Your task to perform on an android device: Set the phone to "Do not disturb". Image 0: 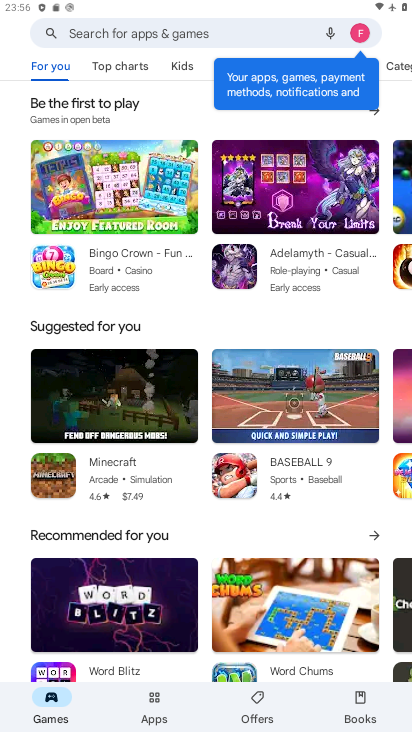
Step 0: press back button
Your task to perform on an android device: Set the phone to "Do not disturb". Image 1: 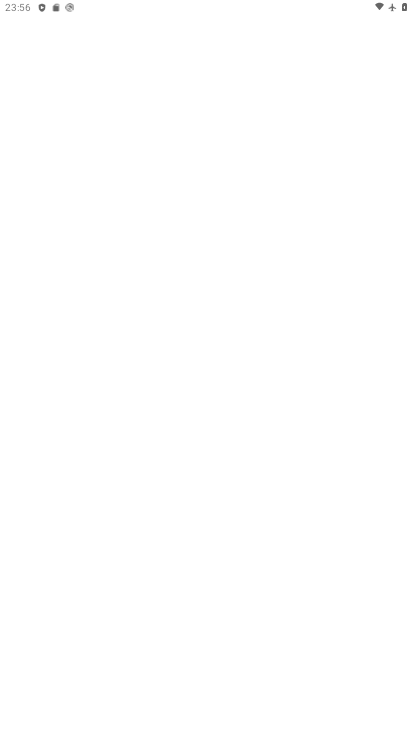
Step 1: press back button
Your task to perform on an android device: Set the phone to "Do not disturb". Image 2: 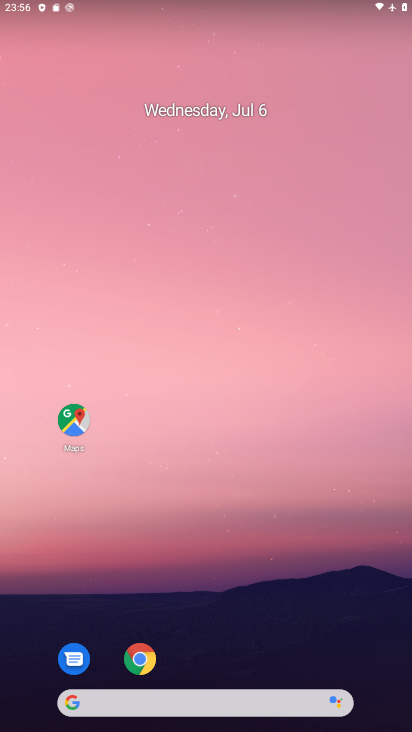
Step 2: press home button
Your task to perform on an android device: Set the phone to "Do not disturb". Image 3: 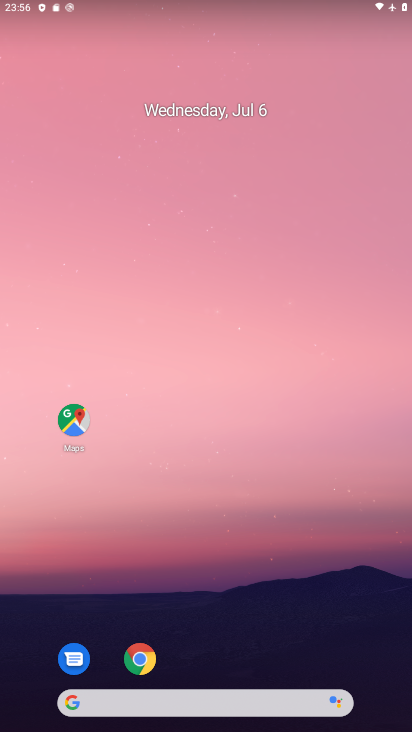
Step 3: press back button
Your task to perform on an android device: Set the phone to "Do not disturb". Image 4: 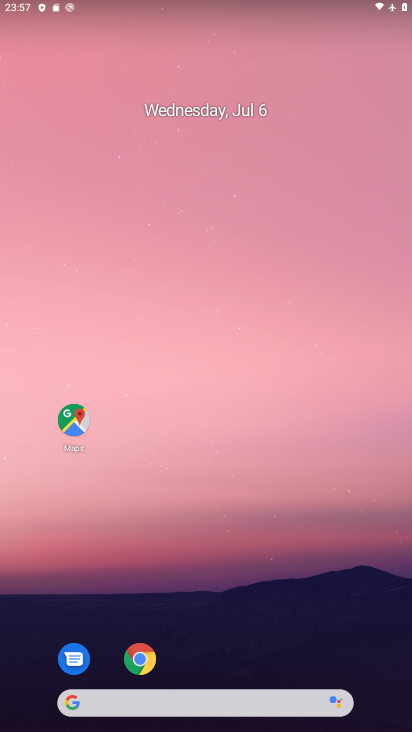
Step 4: drag from (50, 130) to (382, 355)
Your task to perform on an android device: Set the phone to "Do not disturb". Image 5: 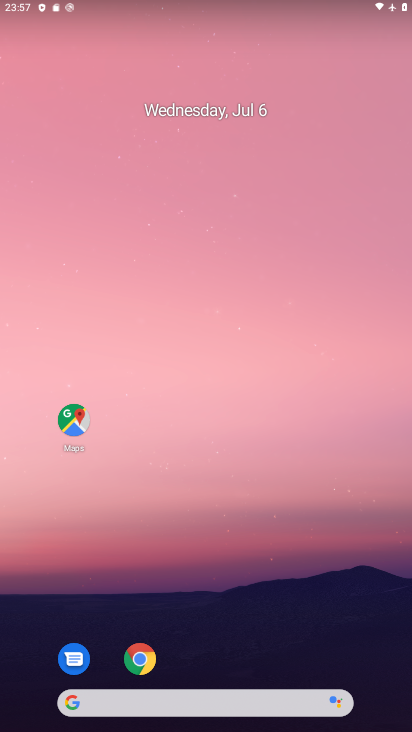
Step 5: drag from (215, 408) to (184, 309)
Your task to perform on an android device: Set the phone to "Do not disturb". Image 6: 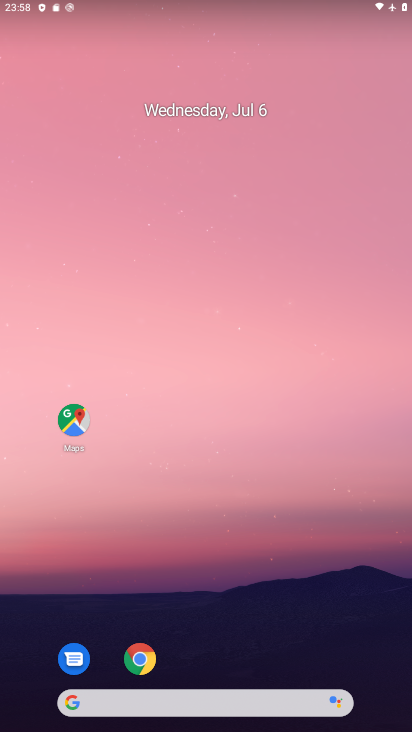
Step 6: drag from (90, 269) to (115, 31)
Your task to perform on an android device: Set the phone to "Do not disturb". Image 7: 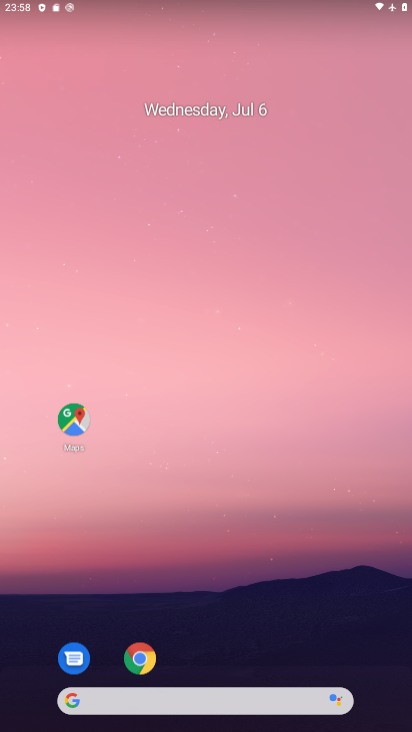
Step 7: drag from (222, 503) to (187, 65)
Your task to perform on an android device: Set the phone to "Do not disturb". Image 8: 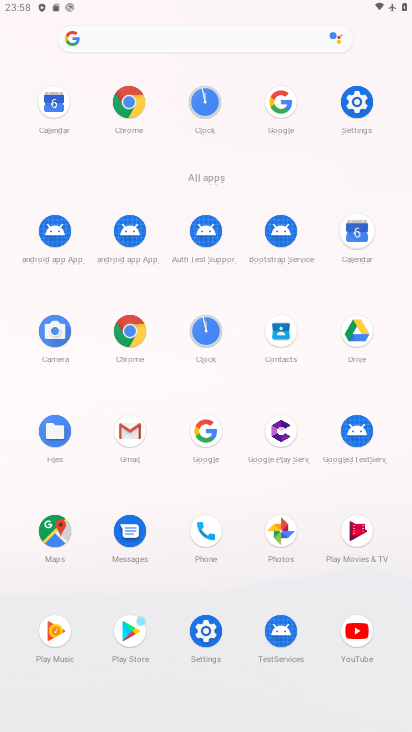
Step 8: drag from (257, 710) to (71, 31)
Your task to perform on an android device: Set the phone to "Do not disturb". Image 9: 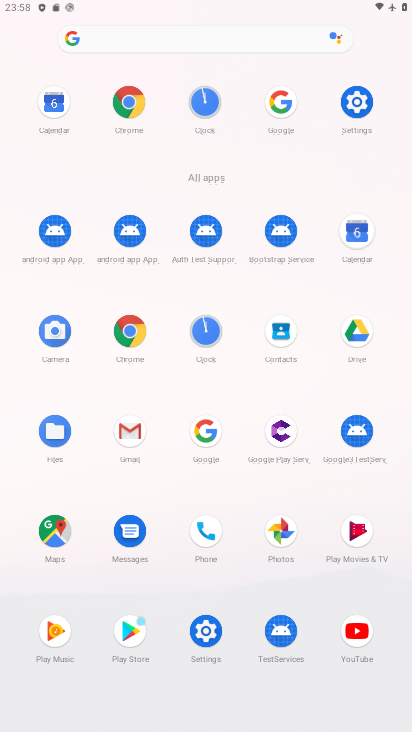
Step 9: click (351, 95)
Your task to perform on an android device: Set the phone to "Do not disturb". Image 10: 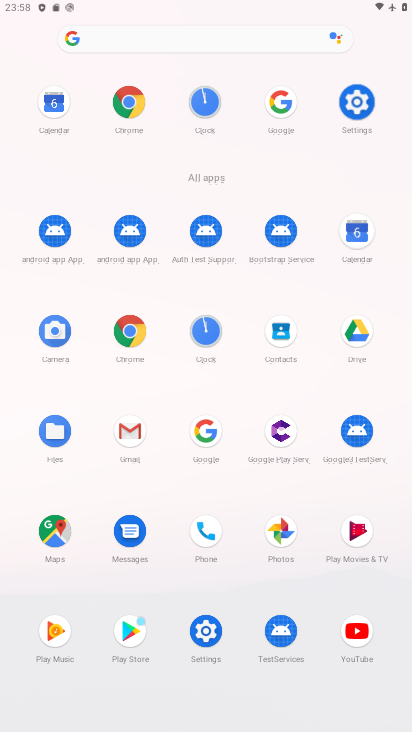
Step 10: click (356, 100)
Your task to perform on an android device: Set the phone to "Do not disturb". Image 11: 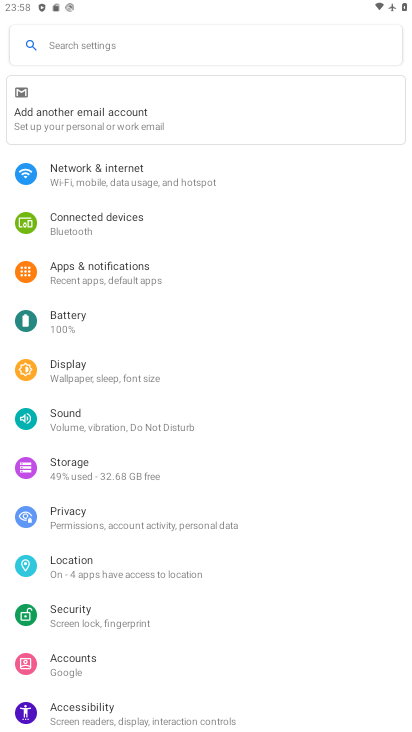
Step 11: click (361, 102)
Your task to perform on an android device: Set the phone to "Do not disturb". Image 12: 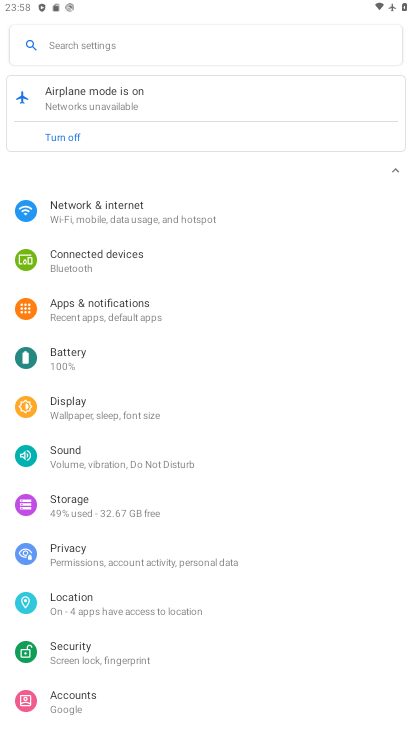
Step 12: click (361, 102)
Your task to perform on an android device: Set the phone to "Do not disturb". Image 13: 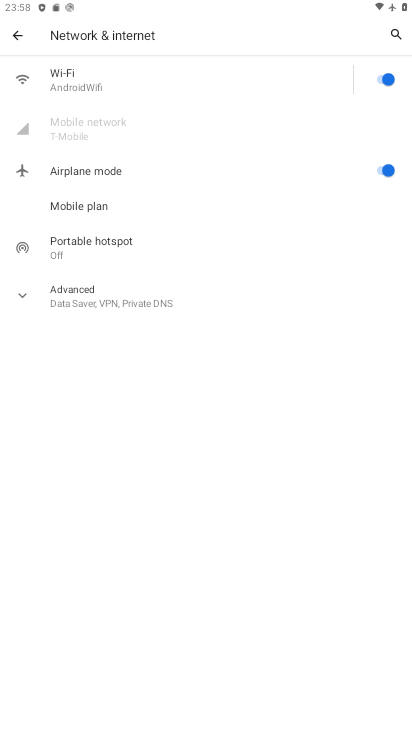
Step 13: click (15, 31)
Your task to perform on an android device: Set the phone to "Do not disturb". Image 14: 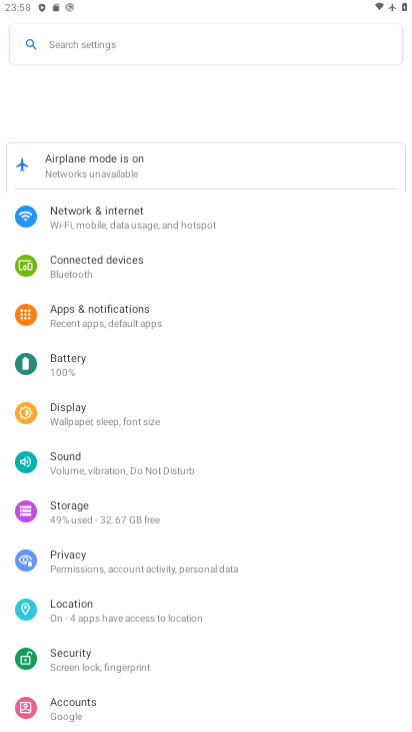
Step 14: click (19, 32)
Your task to perform on an android device: Set the phone to "Do not disturb". Image 15: 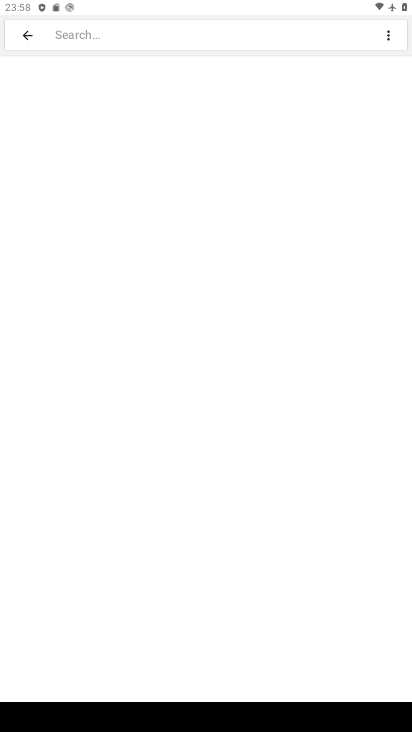
Step 15: click (22, 38)
Your task to perform on an android device: Set the phone to "Do not disturb". Image 16: 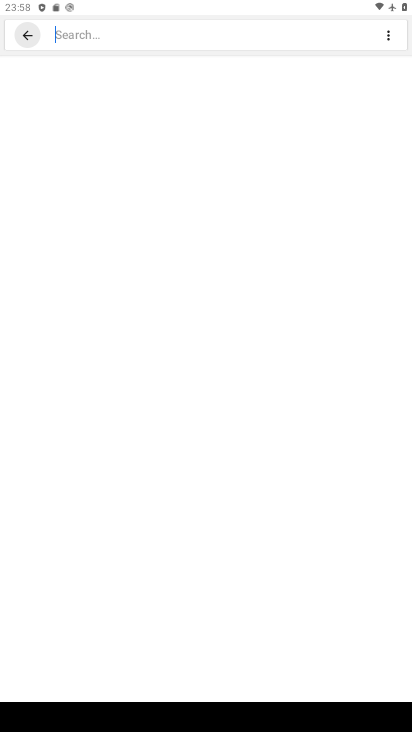
Step 16: click (30, 37)
Your task to perform on an android device: Set the phone to "Do not disturb". Image 17: 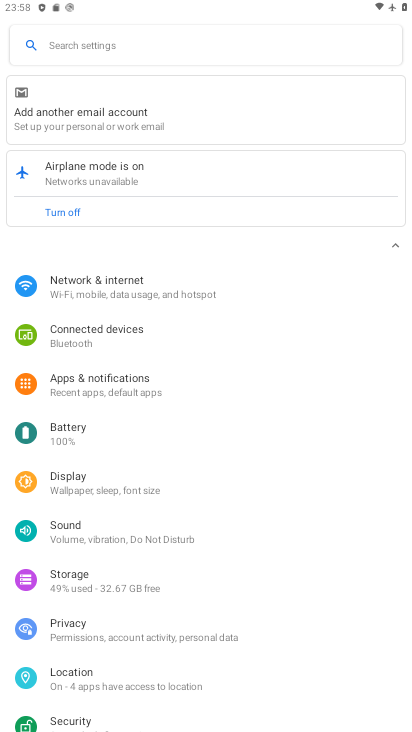
Step 17: click (76, 533)
Your task to perform on an android device: Set the phone to "Do not disturb". Image 18: 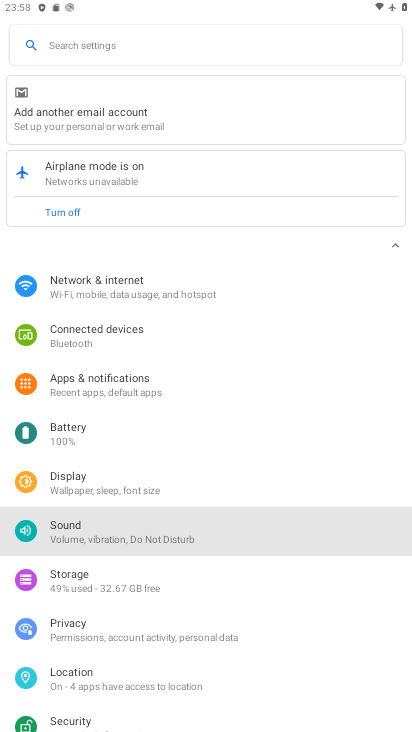
Step 18: click (76, 533)
Your task to perform on an android device: Set the phone to "Do not disturb". Image 19: 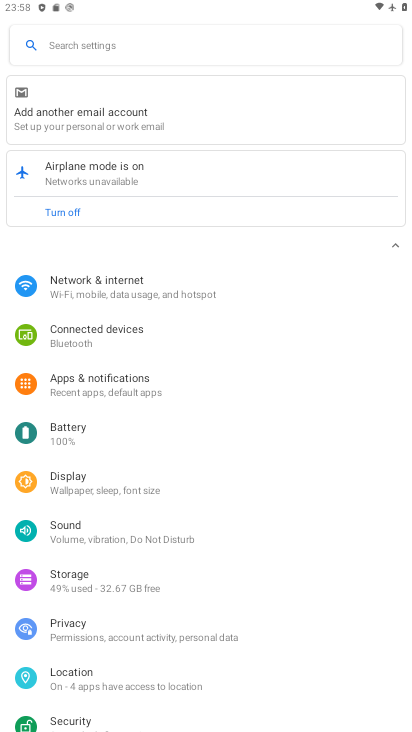
Step 19: click (75, 533)
Your task to perform on an android device: Set the phone to "Do not disturb". Image 20: 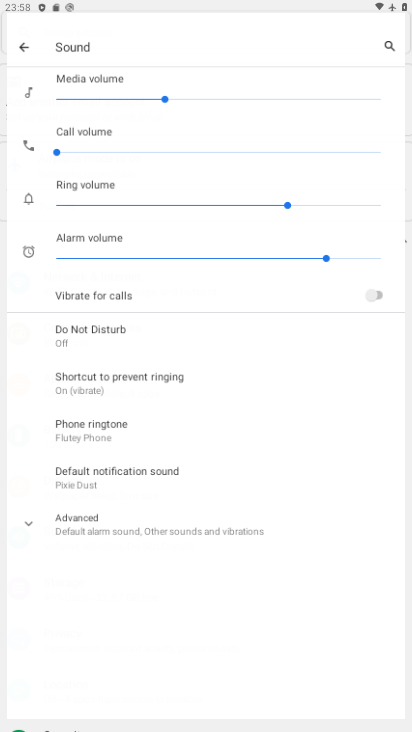
Step 20: click (75, 533)
Your task to perform on an android device: Set the phone to "Do not disturb". Image 21: 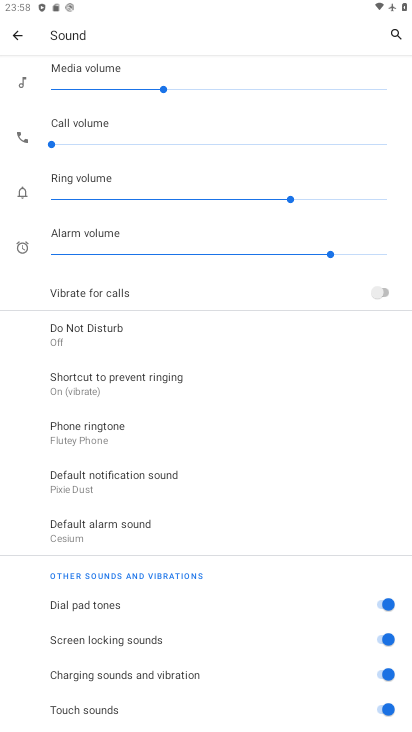
Step 21: click (92, 328)
Your task to perform on an android device: Set the phone to "Do not disturb". Image 22: 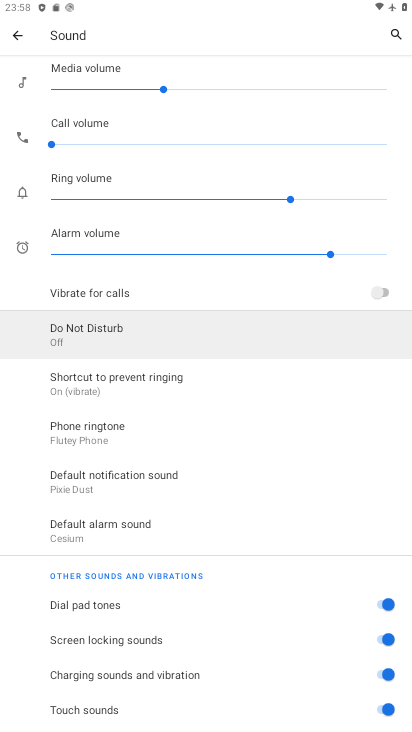
Step 22: click (91, 328)
Your task to perform on an android device: Set the phone to "Do not disturb". Image 23: 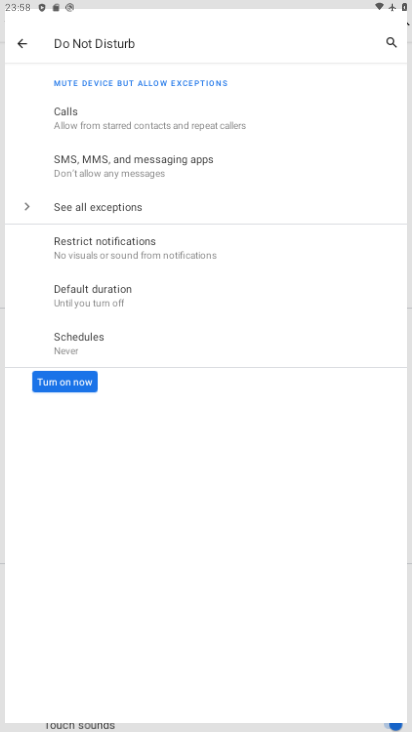
Step 23: click (90, 328)
Your task to perform on an android device: Set the phone to "Do not disturb". Image 24: 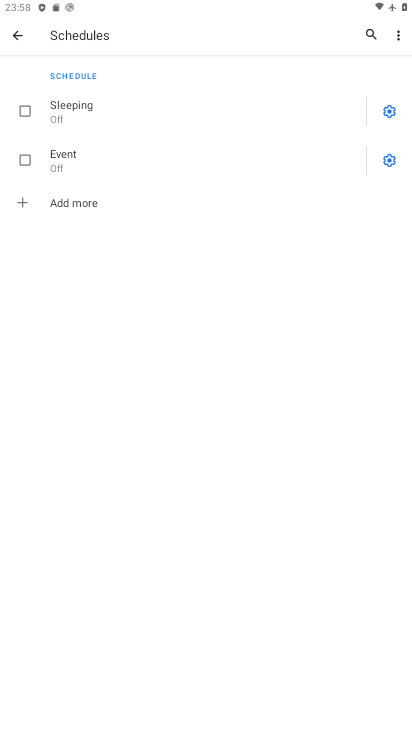
Step 24: click (14, 35)
Your task to perform on an android device: Set the phone to "Do not disturb". Image 25: 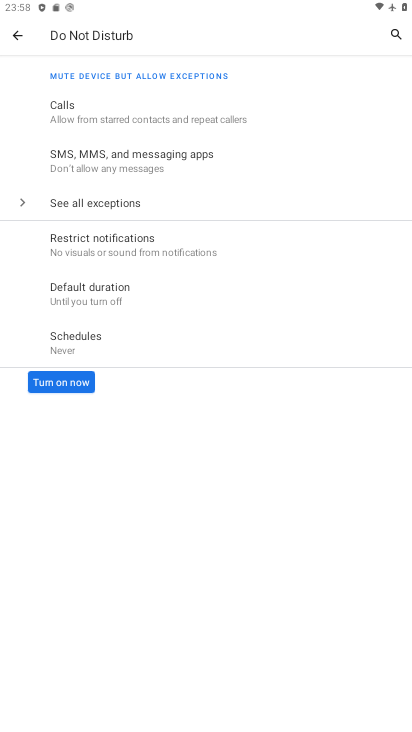
Step 25: click (16, 41)
Your task to perform on an android device: Set the phone to "Do not disturb". Image 26: 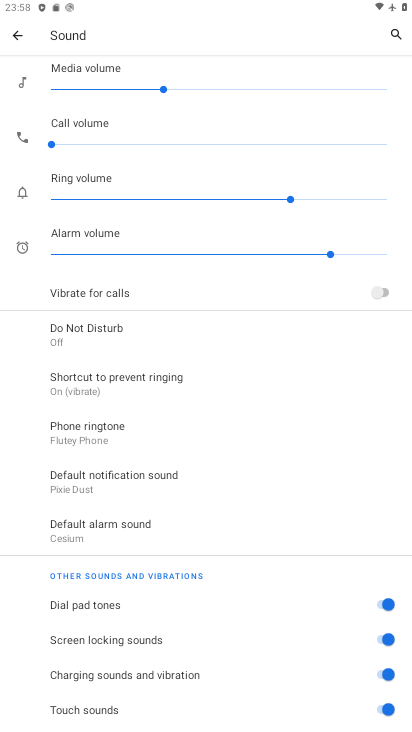
Step 26: click (75, 322)
Your task to perform on an android device: Set the phone to "Do not disturb". Image 27: 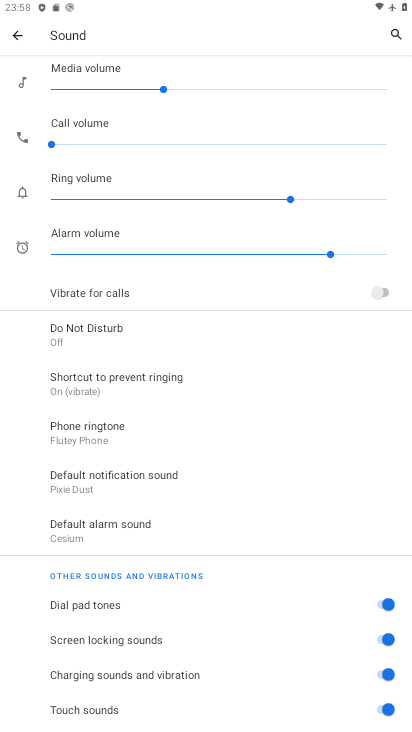
Step 27: task complete